Your task to perform on an android device: Open Reddit.com Image 0: 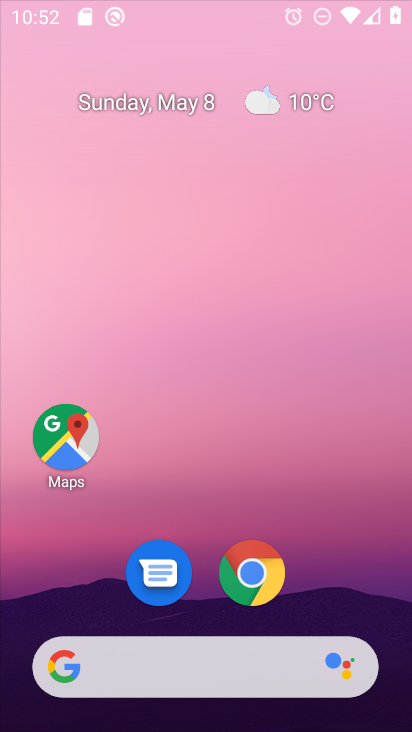
Step 0: drag from (366, 522) to (354, 126)
Your task to perform on an android device: Open Reddit.com Image 1: 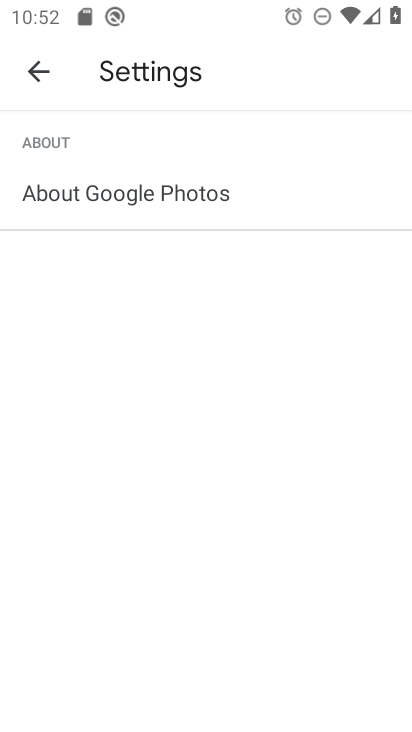
Step 1: press home button
Your task to perform on an android device: Open Reddit.com Image 2: 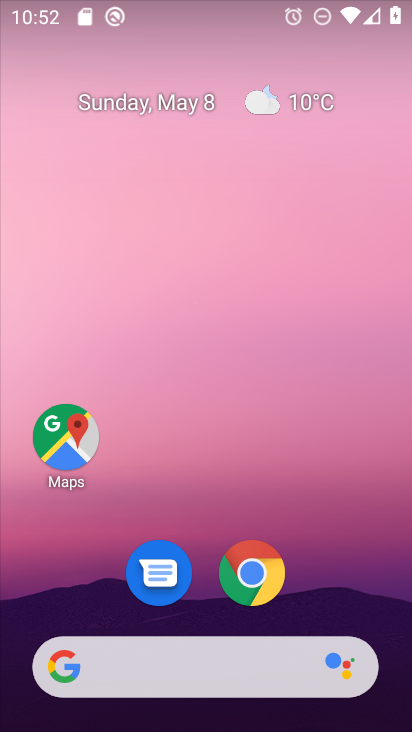
Step 2: drag from (355, 602) to (330, 88)
Your task to perform on an android device: Open Reddit.com Image 3: 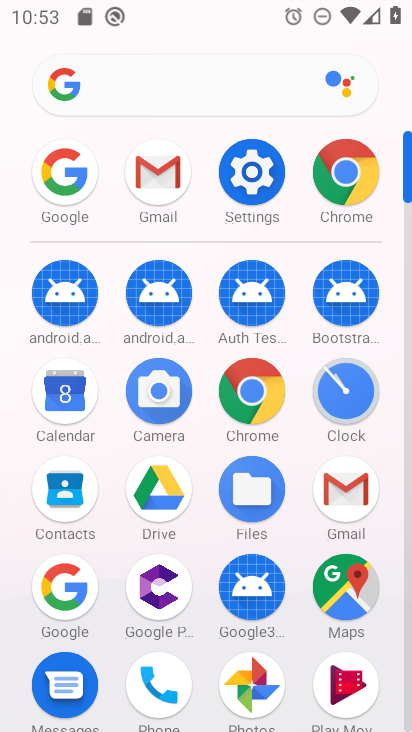
Step 3: click (332, 168)
Your task to perform on an android device: Open Reddit.com Image 4: 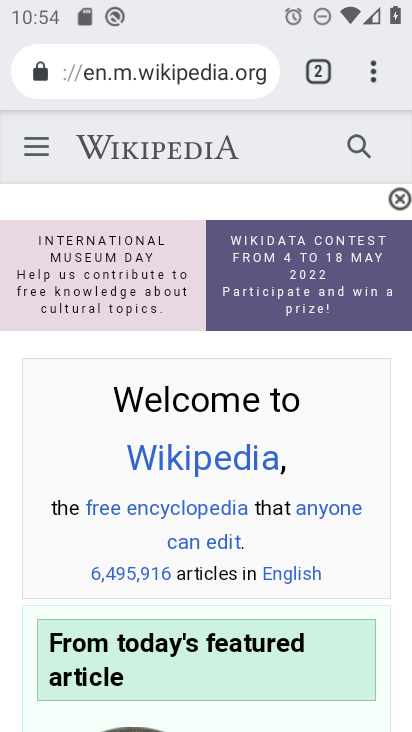
Step 4: click (206, 69)
Your task to perform on an android device: Open Reddit.com Image 5: 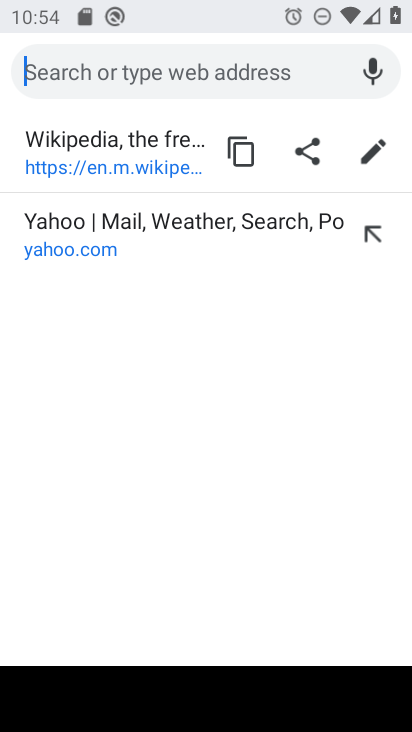
Step 5: type "Reddit.com"
Your task to perform on an android device: Open Reddit.com Image 6: 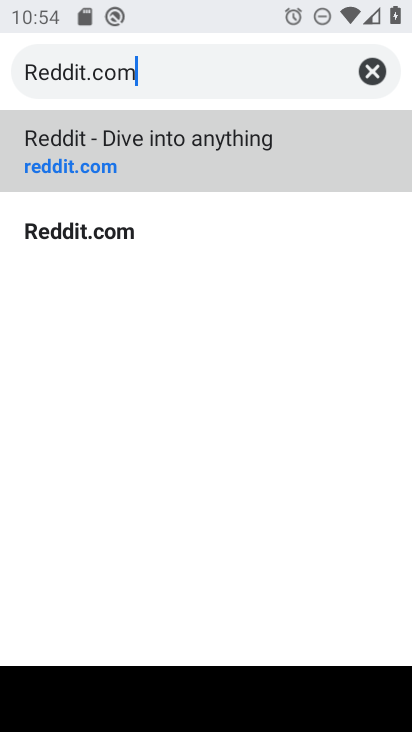
Step 6: click (83, 149)
Your task to perform on an android device: Open Reddit.com Image 7: 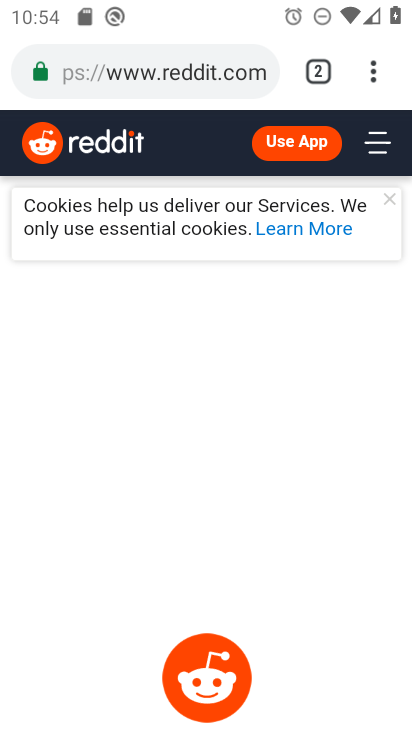
Step 7: task complete